Your task to perform on an android device: turn pop-ups off in chrome Image 0: 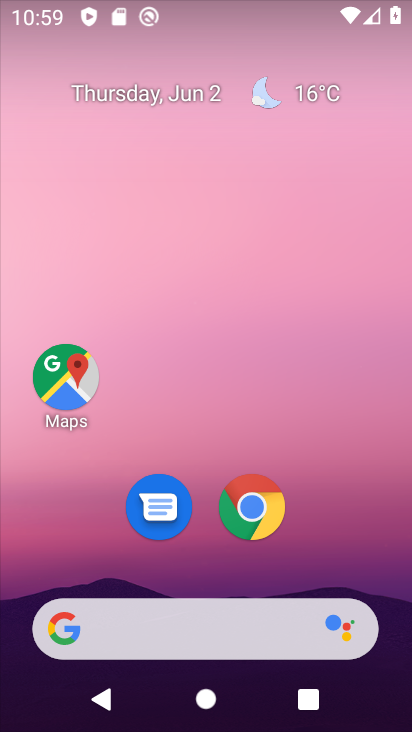
Step 0: drag from (394, 635) to (292, 29)
Your task to perform on an android device: turn pop-ups off in chrome Image 1: 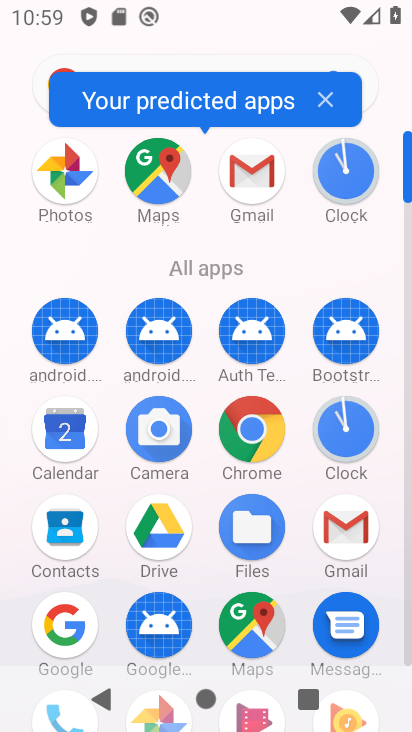
Step 1: click (269, 413)
Your task to perform on an android device: turn pop-ups off in chrome Image 2: 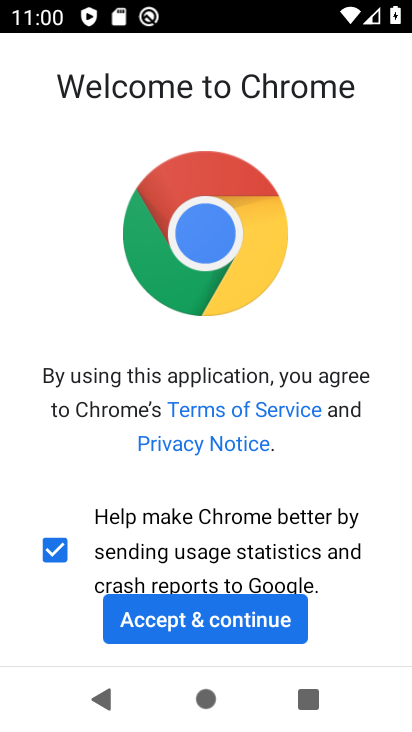
Step 2: click (202, 610)
Your task to perform on an android device: turn pop-ups off in chrome Image 3: 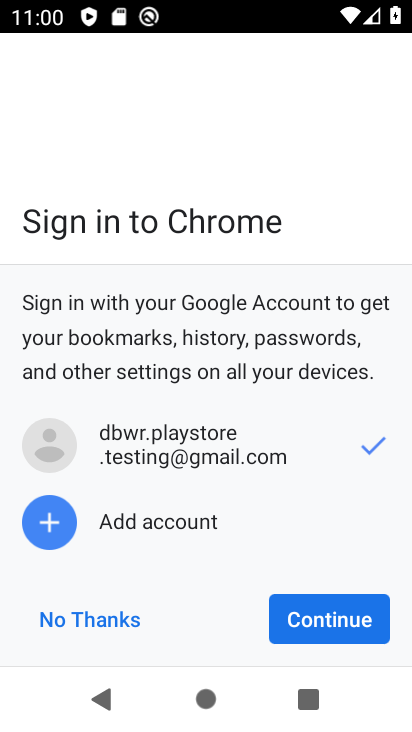
Step 3: click (355, 626)
Your task to perform on an android device: turn pop-ups off in chrome Image 4: 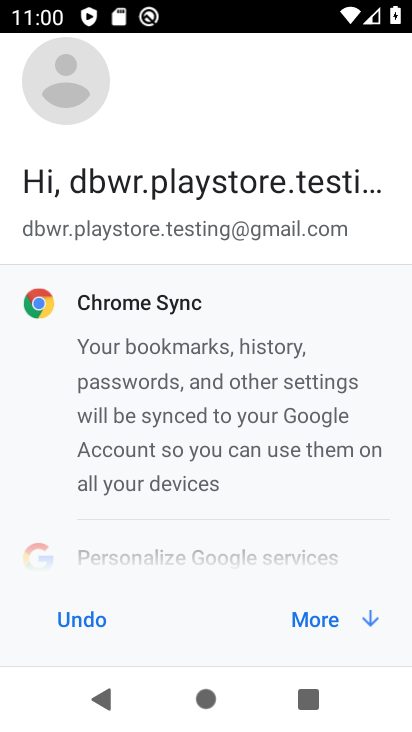
Step 4: click (330, 626)
Your task to perform on an android device: turn pop-ups off in chrome Image 5: 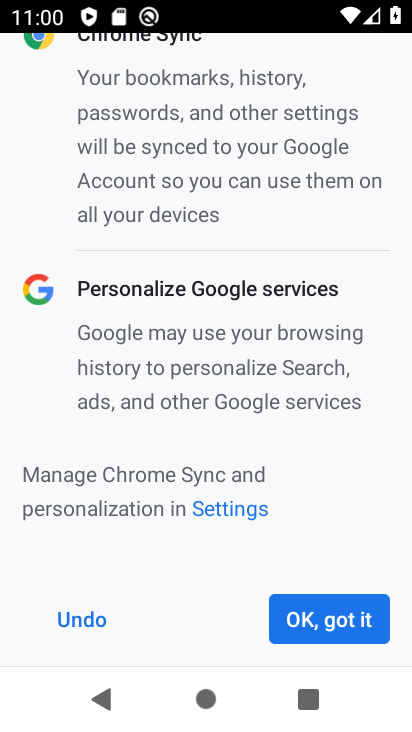
Step 5: click (330, 626)
Your task to perform on an android device: turn pop-ups off in chrome Image 6: 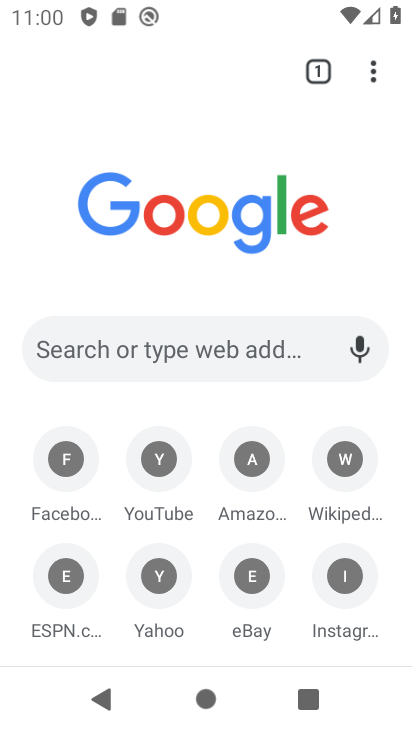
Step 6: click (379, 61)
Your task to perform on an android device: turn pop-ups off in chrome Image 7: 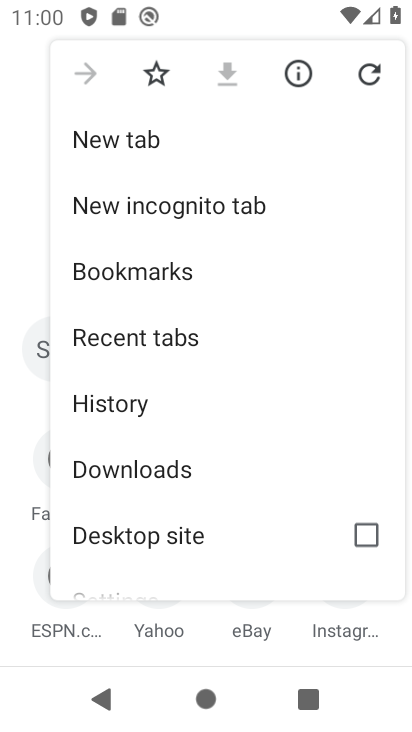
Step 7: drag from (155, 551) to (266, 143)
Your task to perform on an android device: turn pop-ups off in chrome Image 8: 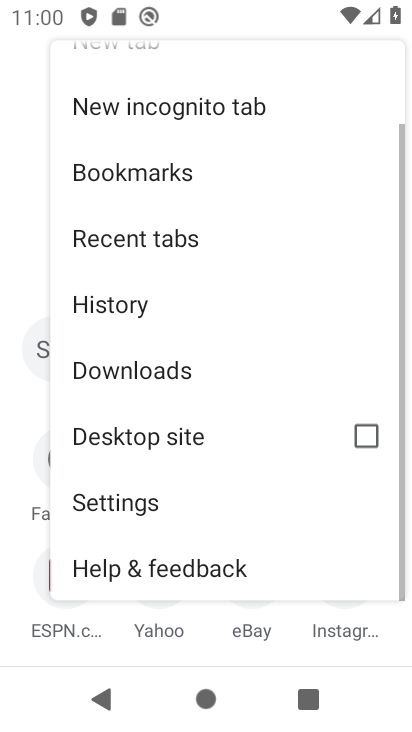
Step 8: click (152, 481)
Your task to perform on an android device: turn pop-ups off in chrome Image 9: 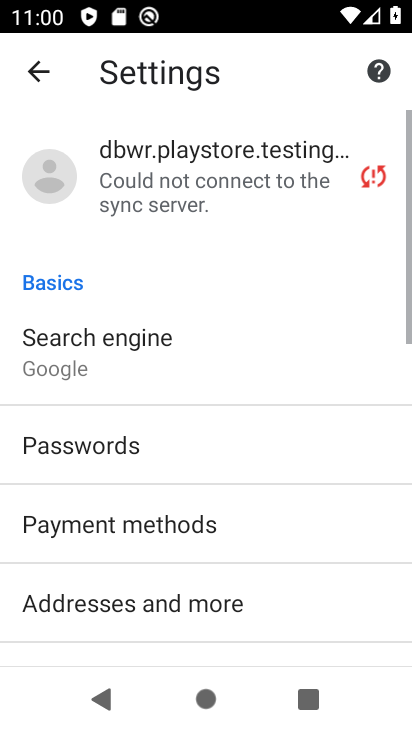
Step 9: drag from (255, 633) to (257, 96)
Your task to perform on an android device: turn pop-ups off in chrome Image 10: 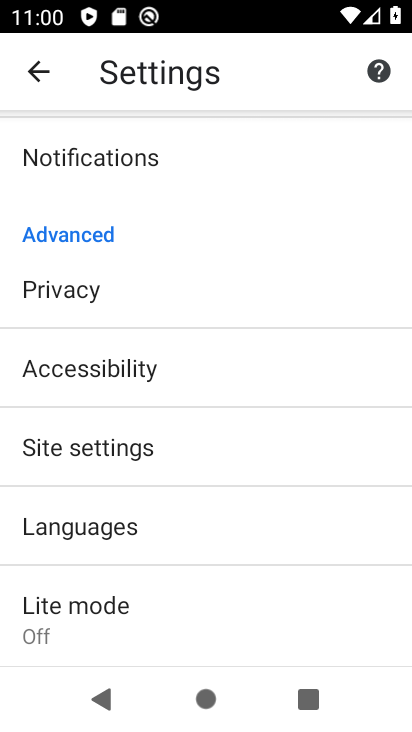
Step 10: click (132, 449)
Your task to perform on an android device: turn pop-ups off in chrome Image 11: 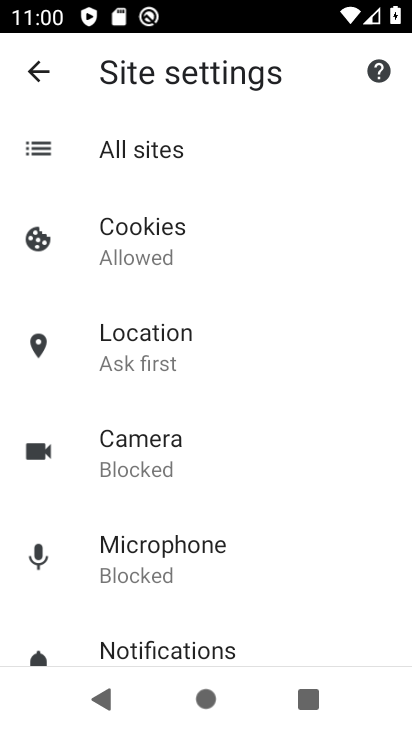
Step 11: drag from (245, 631) to (246, 137)
Your task to perform on an android device: turn pop-ups off in chrome Image 12: 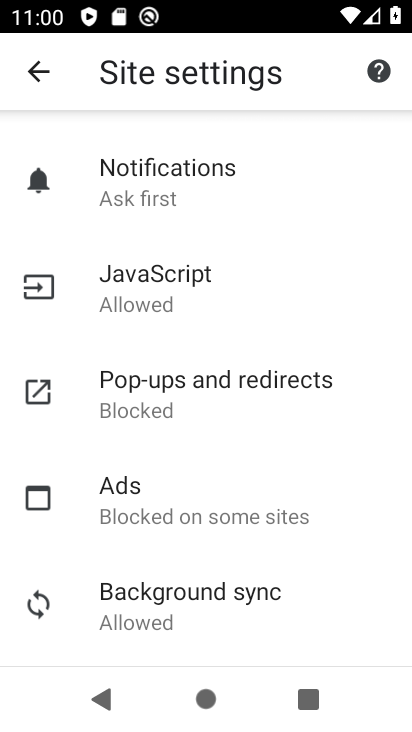
Step 12: click (238, 405)
Your task to perform on an android device: turn pop-ups off in chrome Image 13: 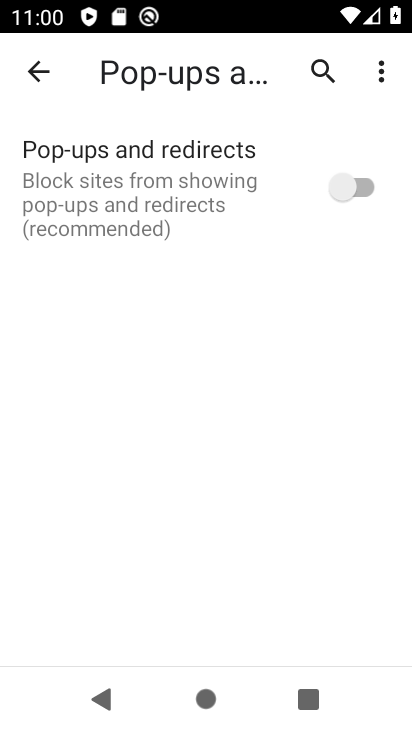
Step 13: task complete